Your task to perform on an android device: check storage Image 0: 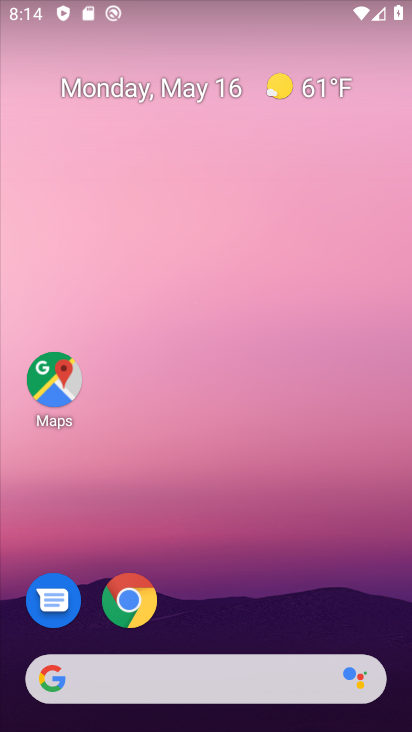
Step 0: drag from (229, 628) to (251, 19)
Your task to perform on an android device: check storage Image 1: 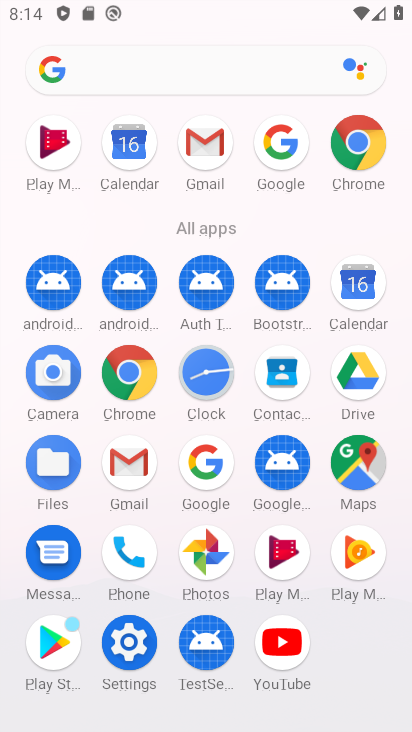
Step 1: click (117, 663)
Your task to perform on an android device: check storage Image 2: 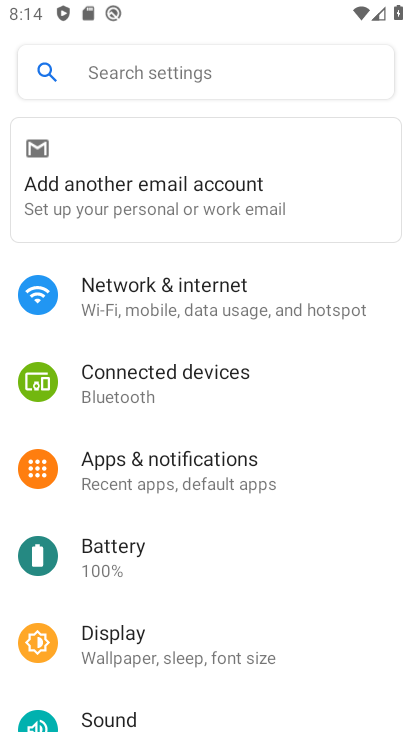
Step 2: drag from (151, 659) to (171, 493)
Your task to perform on an android device: check storage Image 3: 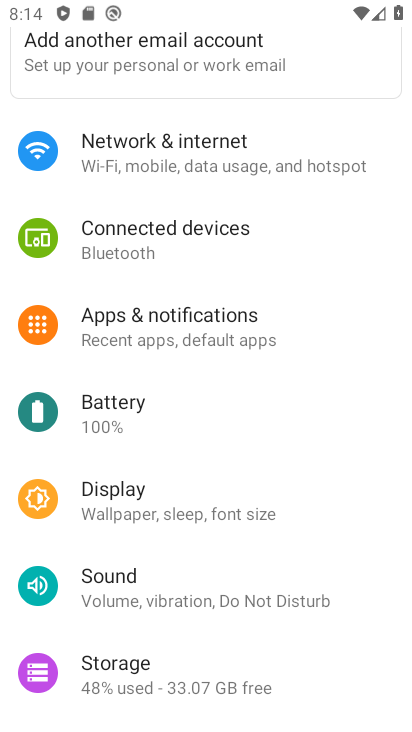
Step 3: click (162, 661)
Your task to perform on an android device: check storage Image 4: 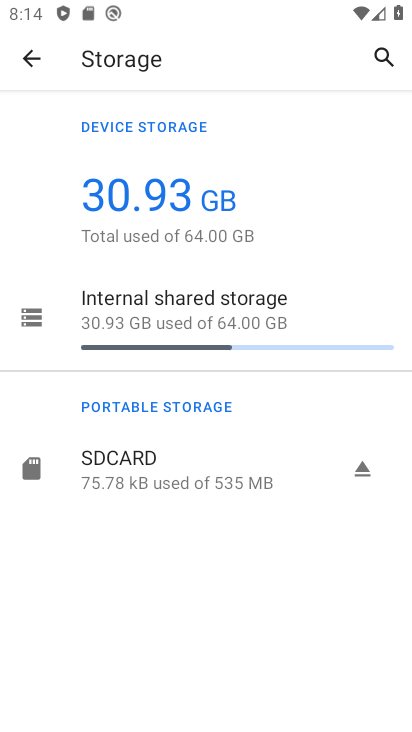
Step 4: task complete